Your task to perform on an android device: turn on notifications settings in the gmail app Image 0: 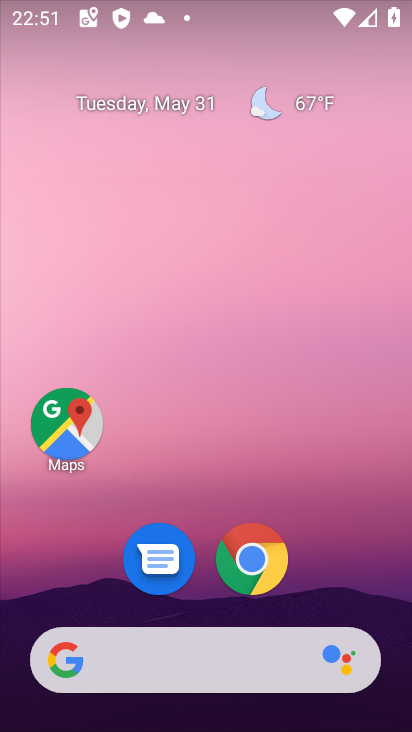
Step 0: drag from (324, 565) to (276, 160)
Your task to perform on an android device: turn on notifications settings in the gmail app Image 1: 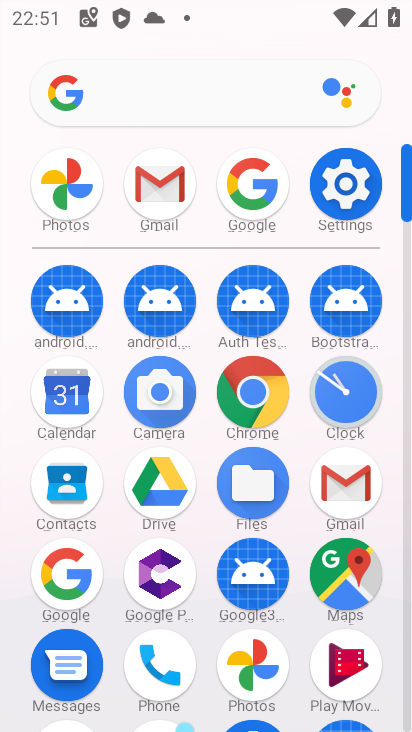
Step 1: click (156, 188)
Your task to perform on an android device: turn on notifications settings in the gmail app Image 2: 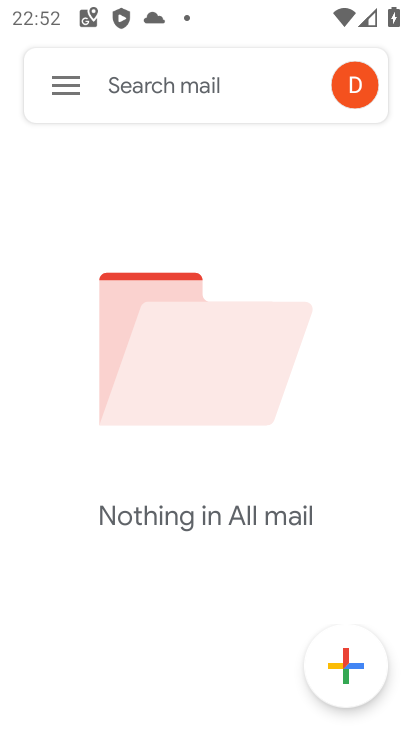
Step 2: click (71, 87)
Your task to perform on an android device: turn on notifications settings in the gmail app Image 3: 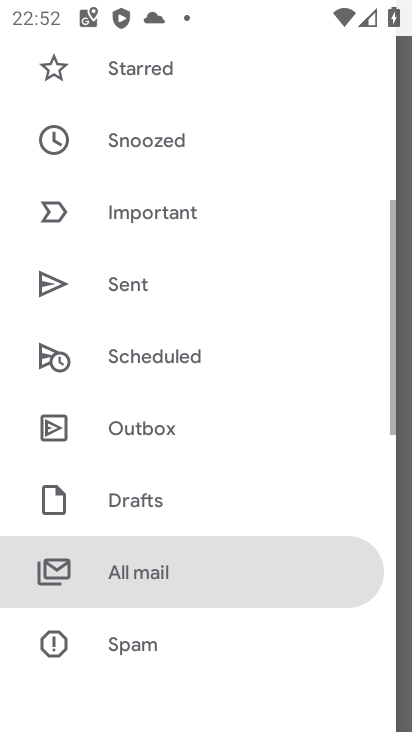
Step 3: drag from (202, 607) to (240, 110)
Your task to perform on an android device: turn on notifications settings in the gmail app Image 4: 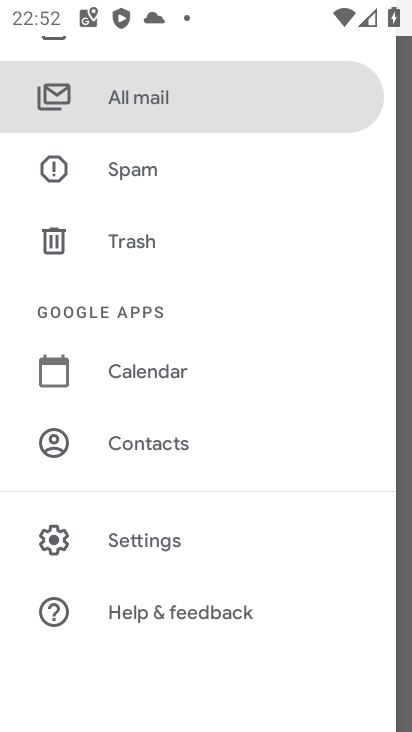
Step 4: click (109, 532)
Your task to perform on an android device: turn on notifications settings in the gmail app Image 5: 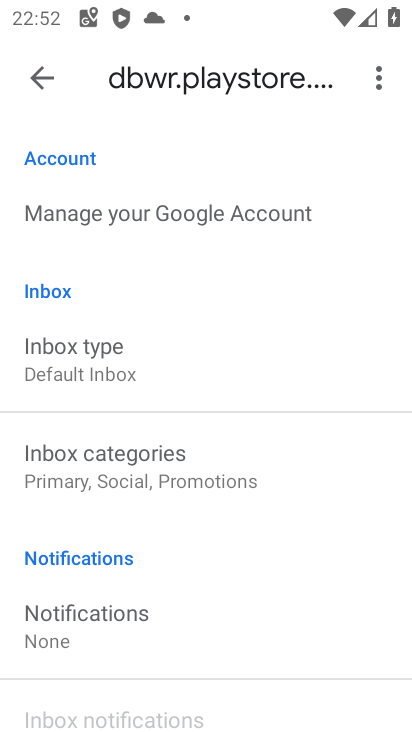
Step 5: click (97, 629)
Your task to perform on an android device: turn on notifications settings in the gmail app Image 6: 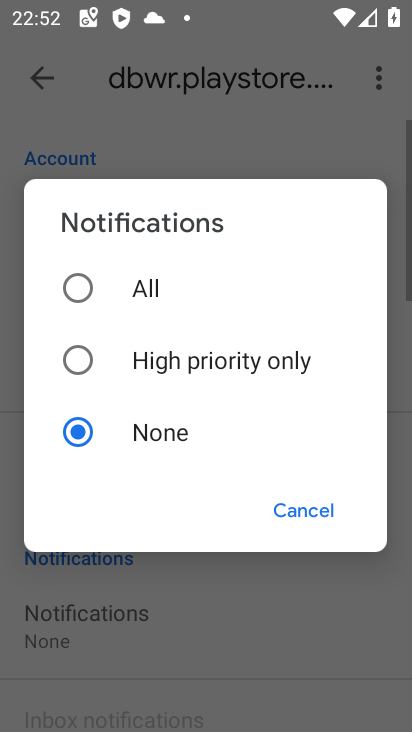
Step 6: click (80, 296)
Your task to perform on an android device: turn on notifications settings in the gmail app Image 7: 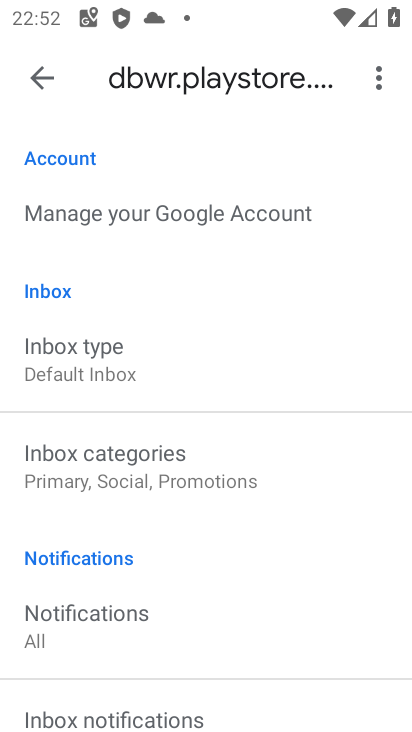
Step 7: task complete